Your task to perform on an android device: Open Google Chrome Image 0: 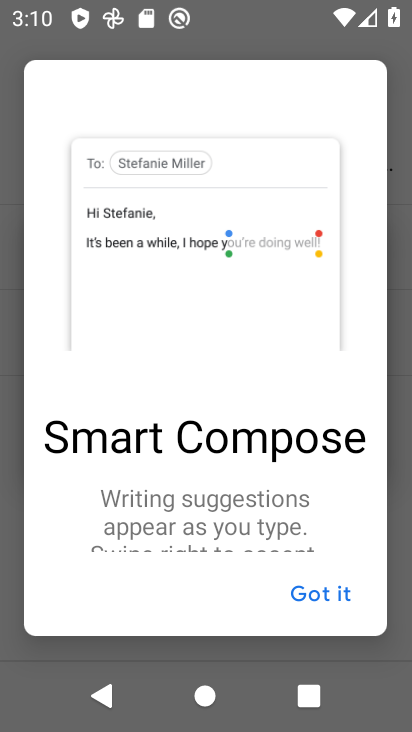
Step 0: press home button
Your task to perform on an android device: Open Google Chrome Image 1: 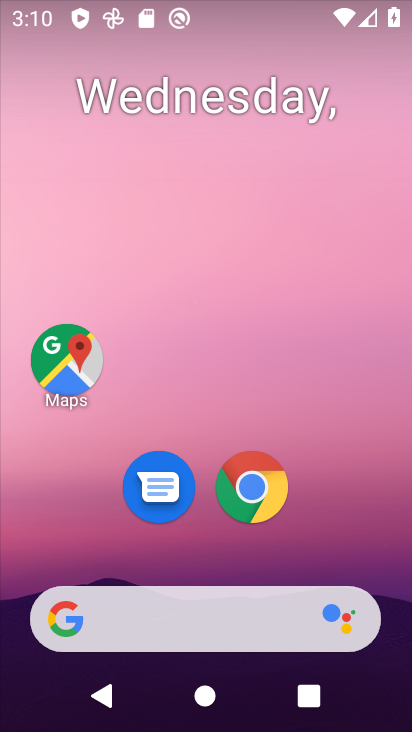
Step 1: drag from (387, 551) to (370, 248)
Your task to perform on an android device: Open Google Chrome Image 2: 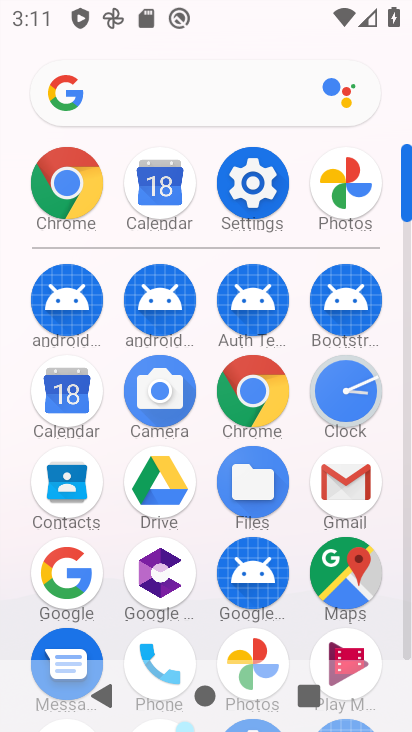
Step 2: click (246, 371)
Your task to perform on an android device: Open Google Chrome Image 3: 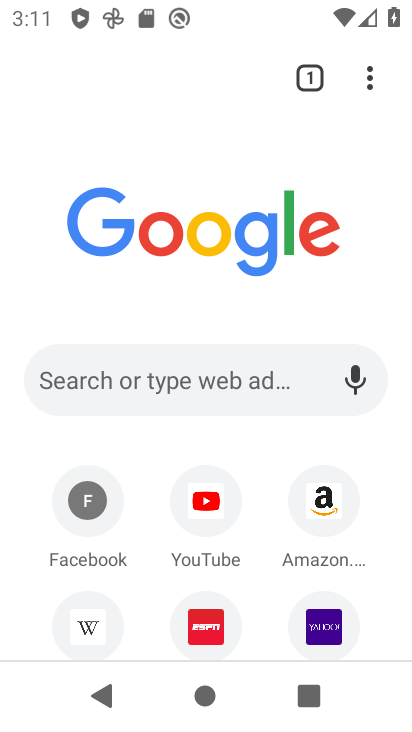
Step 3: task complete